Your task to perform on an android device: Open Android settings Image 0: 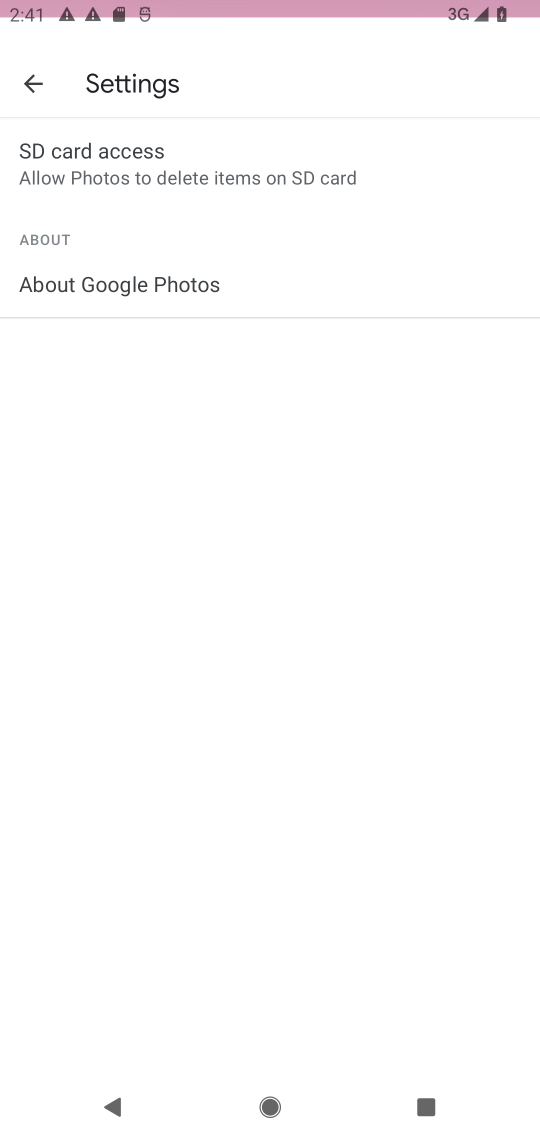
Step 0: press home button
Your task to perform on an android device: Open Android settings Image 1: 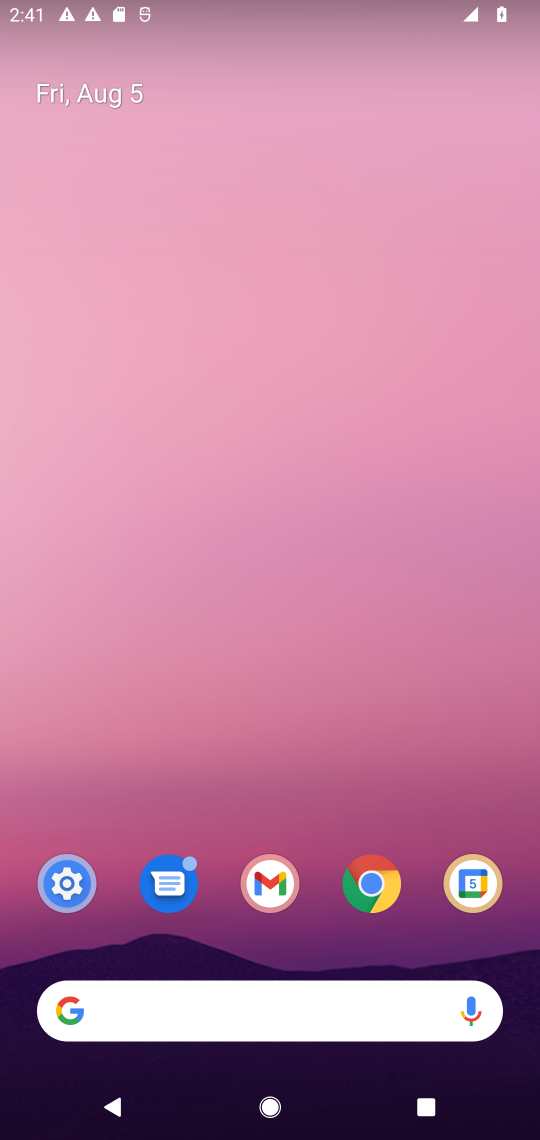
Step 1: press home button
Your task to perform on an android device: Open Android settings Image 2: 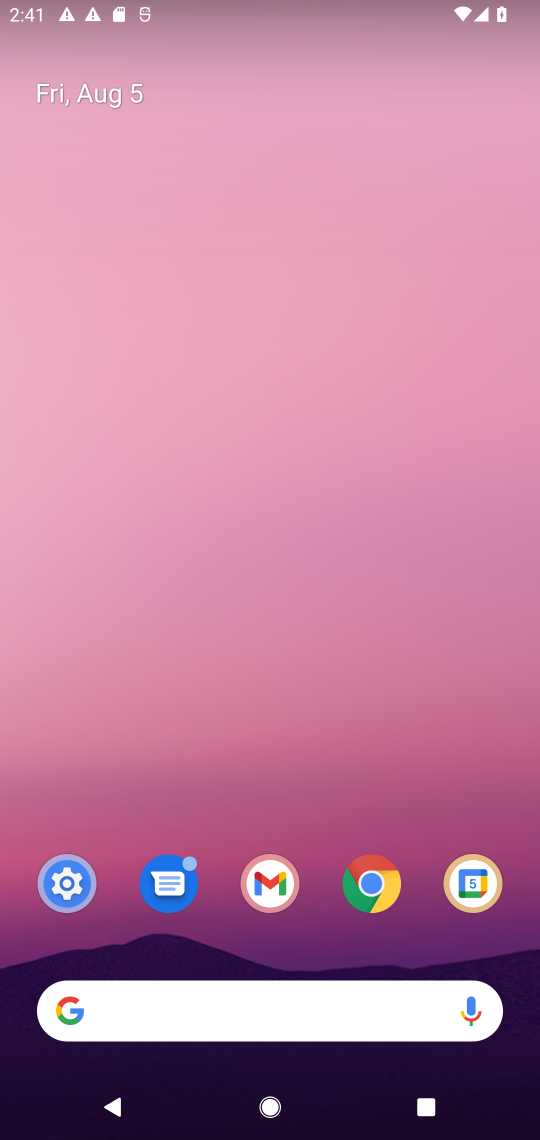
Step 2: drag from (320, 815) to (288, 71)
Your task to perform on an android device: Open Android settings Image 3: 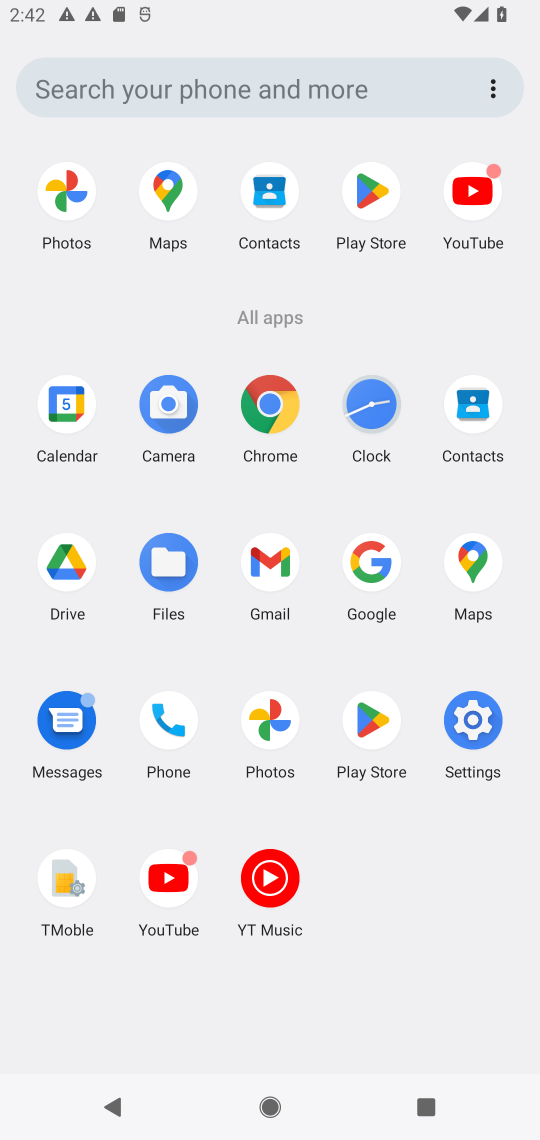
Step 3: click (471, 709)
Your task to perform on an android device: Open Android settings Image 4: 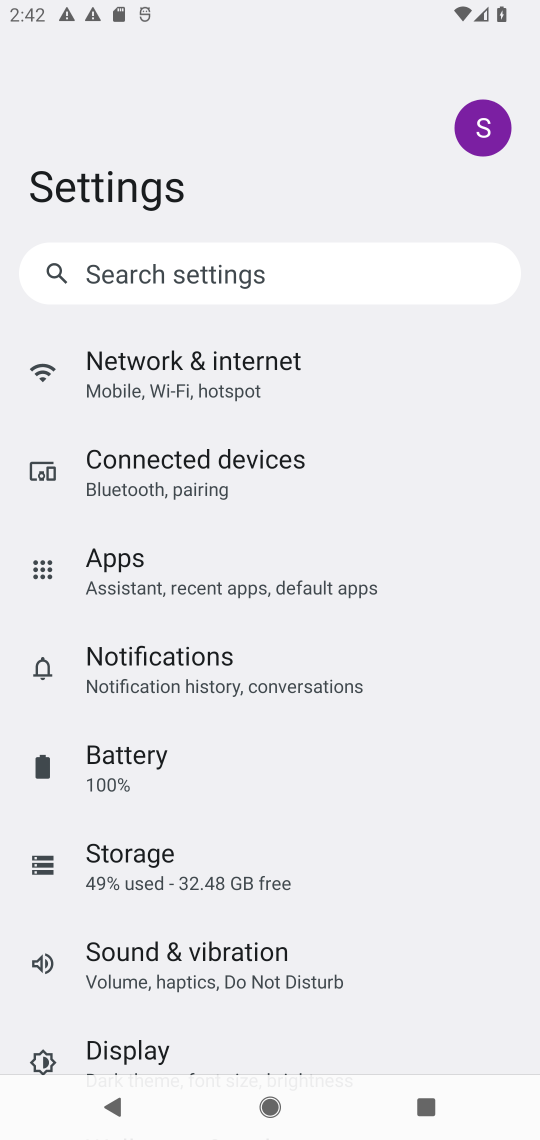
Step 4: drag from (290, 1007) to (312, 253)
Your task to perform on an android device: Open Android settings Image 5: 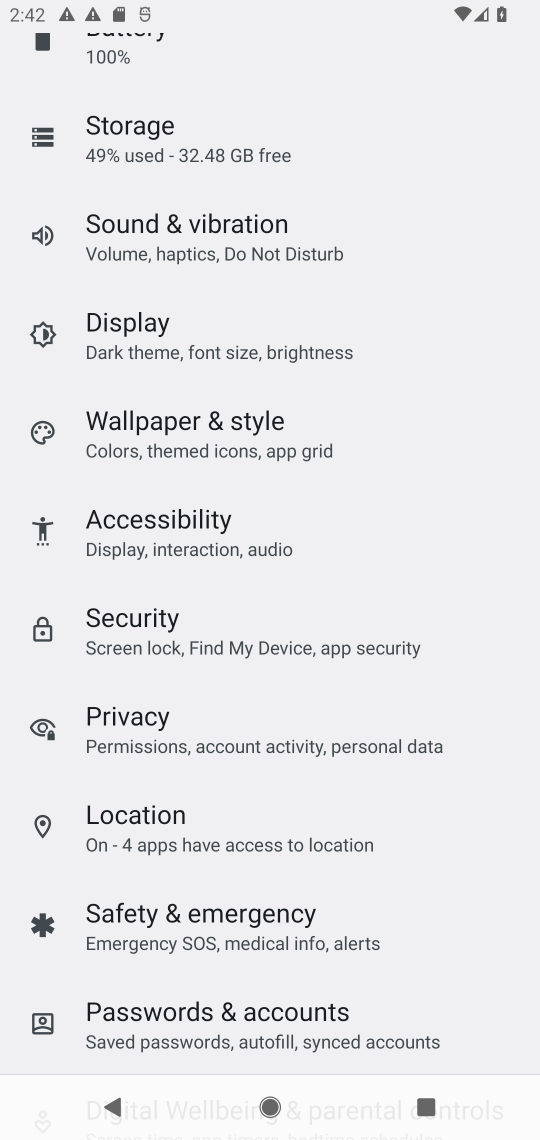
Step 5: drag from (283, 995) to (313, 139)
Your task to perform on an android device: Open Android settings Image 6: 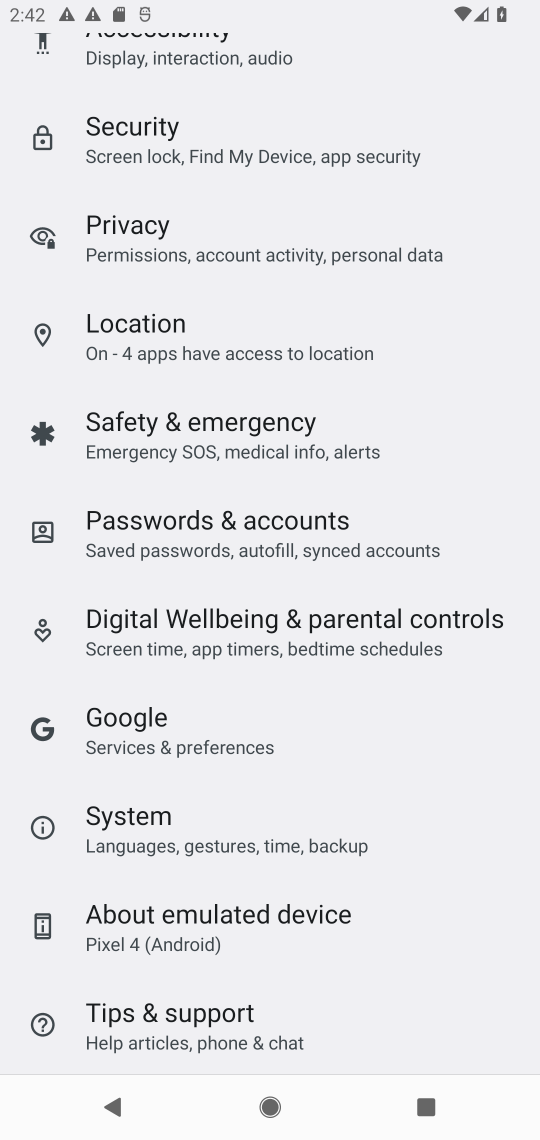
Step 6: drag from (293, 1018) to (351, 198)
Your task to perform on an android device: Open Android settings Image 7: 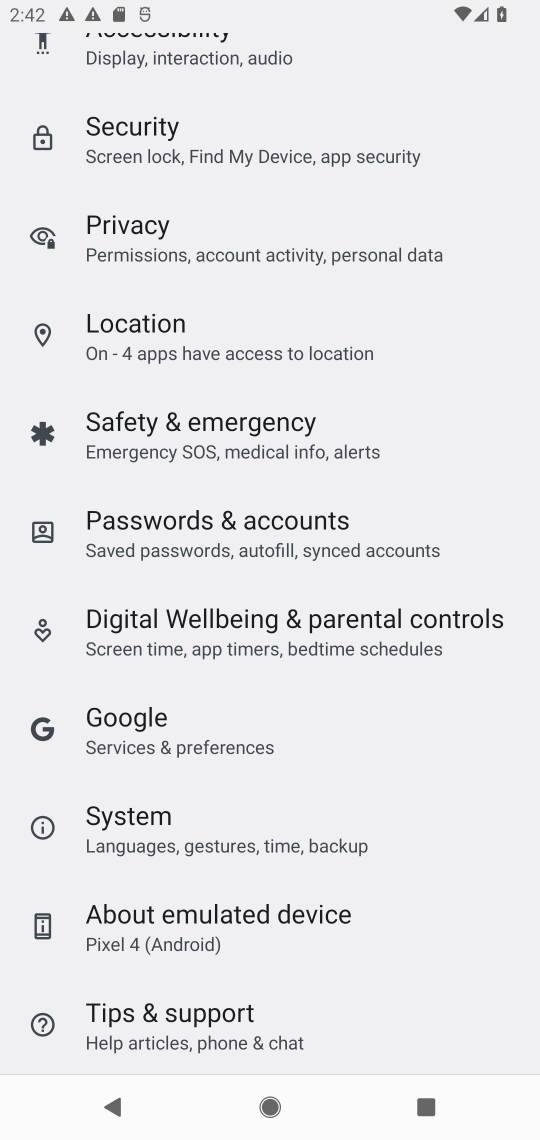
Step 7: click (256, 922)
Your task to perform on an android device: Open Android settings Image 8: 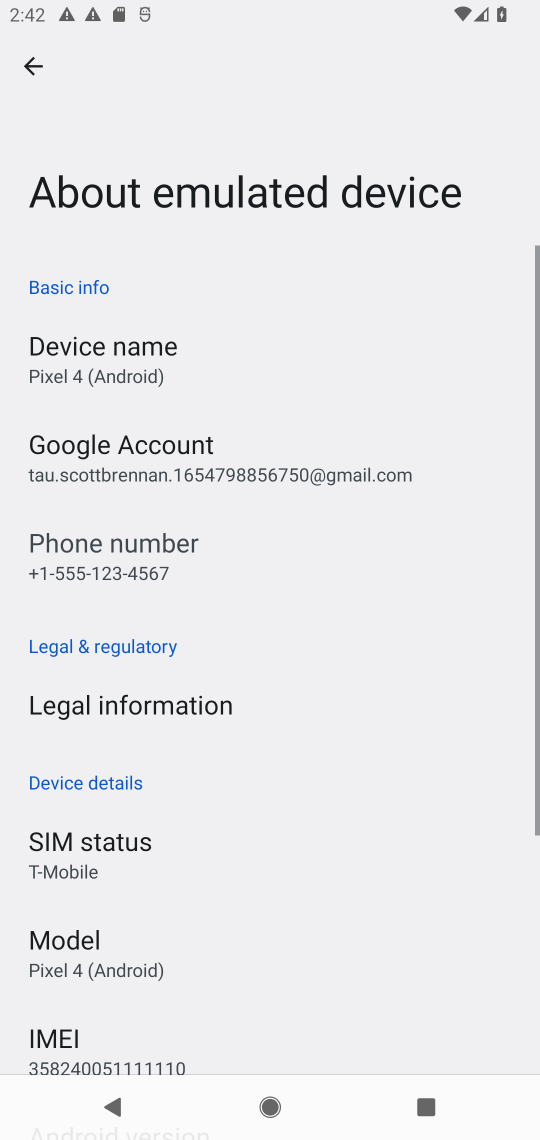
Step 8: drag from (262, 956) to (297, 537)
Your task to perform on an android device: Open Android settings Image 9: 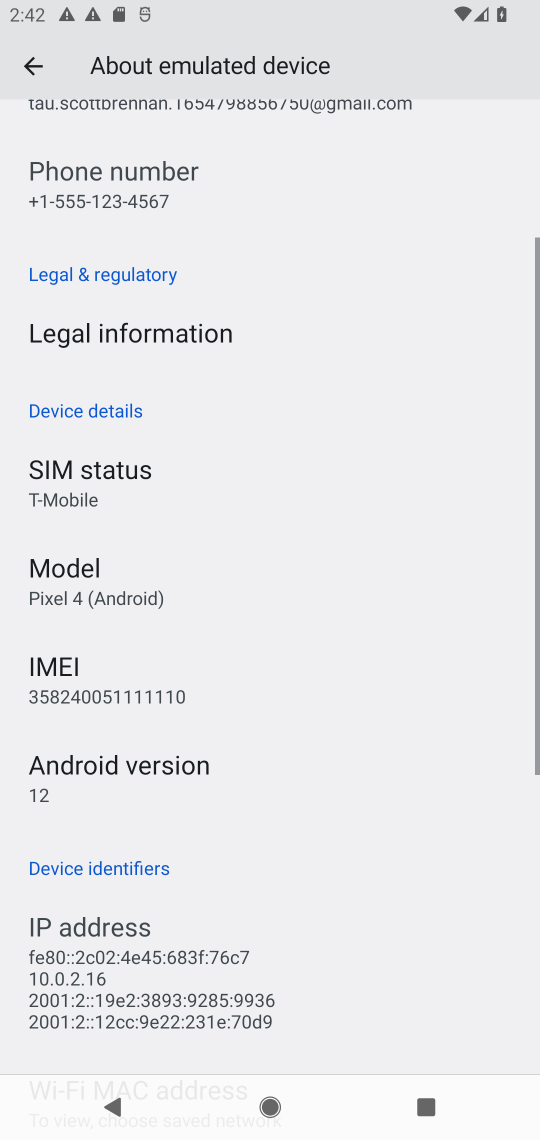
Step 9: click (169, 770)
Your task to perform on an android device: Open Android settings Image 10: 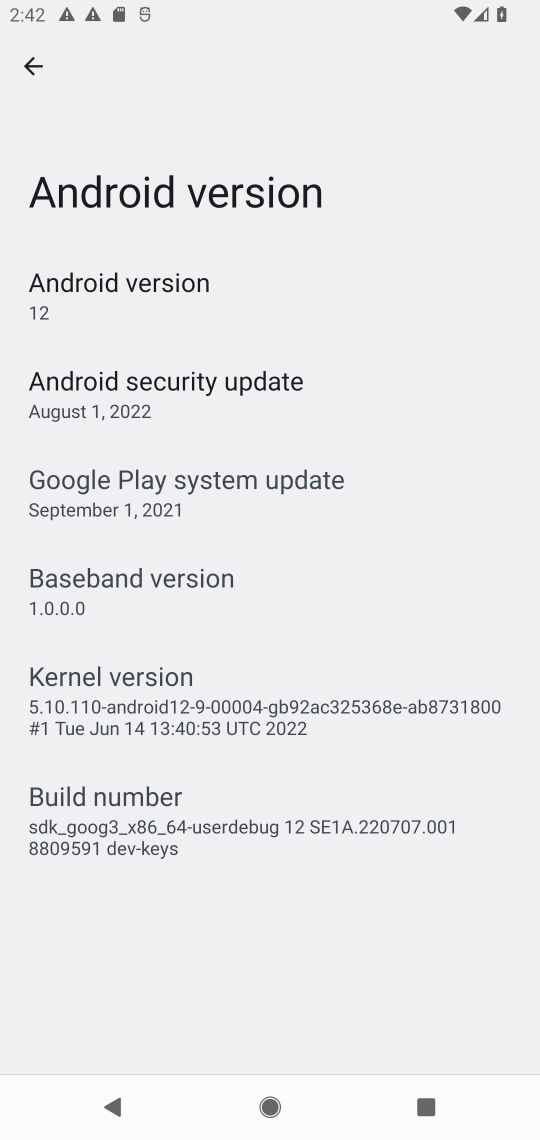
Step 10: task complete